Your task to perform on an android device: change the clock display to digital Image 0: 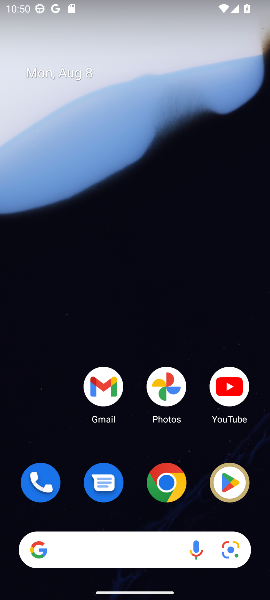
Step 0: drag from (139, 446) to (138, 39)
Your task to perform on an android device: change the clock display to digital Image 1: 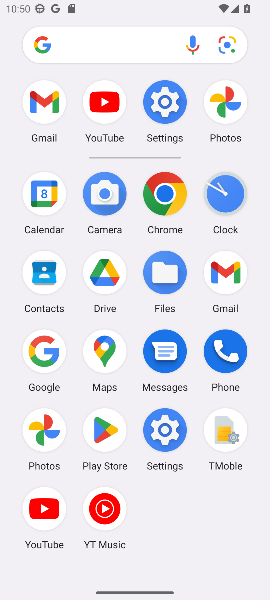
Step 1: click (226, 188)
Your task to perform on an android device: change the clock display to digital Image 2: 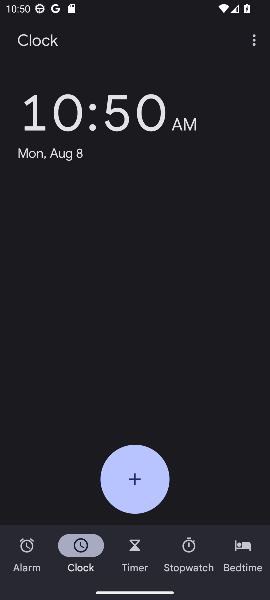
Step 2: click (260, 41)
Your task to perform on an android device: change the clock display to digital Image 3: 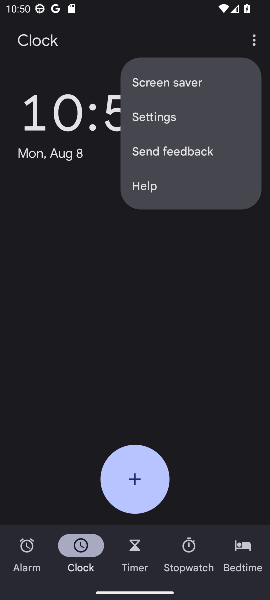
Step 3: click (139, 107)
Your task to perform on an android device: change the clock display to digital Image 4: 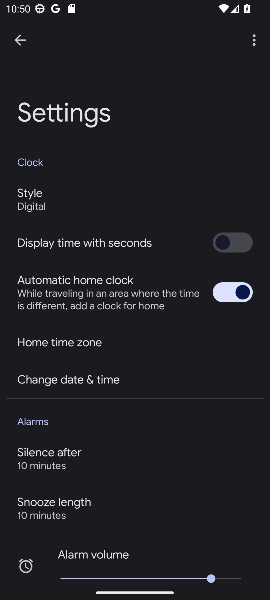
Step 4: task complete